Your task to perform on an android device: Open calendar and show me the second week of next month Image 0: 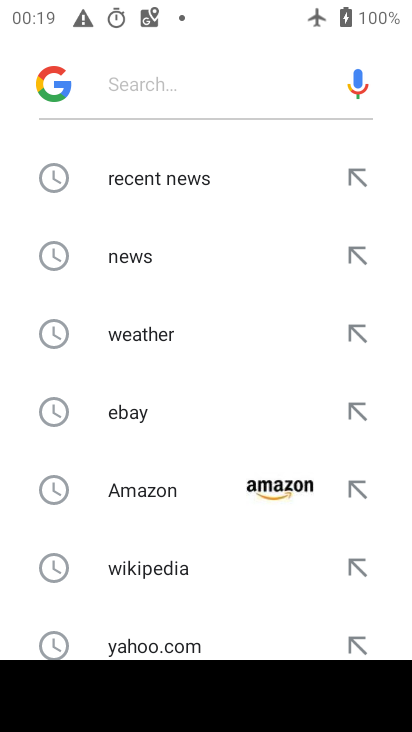
Step 0: press back button
Your task to perform on an android device: Open calendar and show me the second week of next month Image 1: 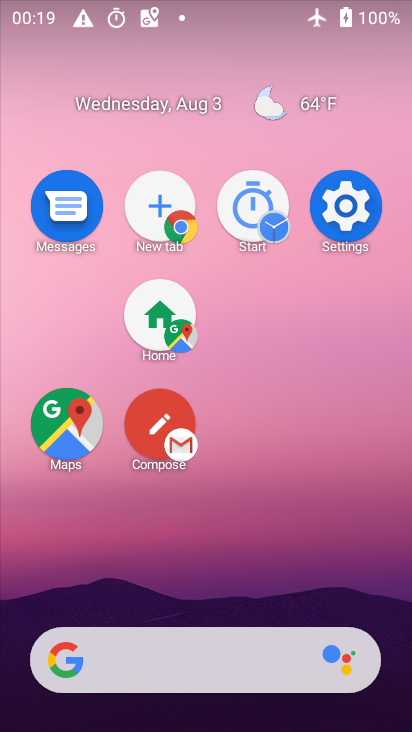
Step 1: drag from (246, 688) to (195, 328)
Your task to perform on an android device: Open calendar and show me the second week of next month Image 2: 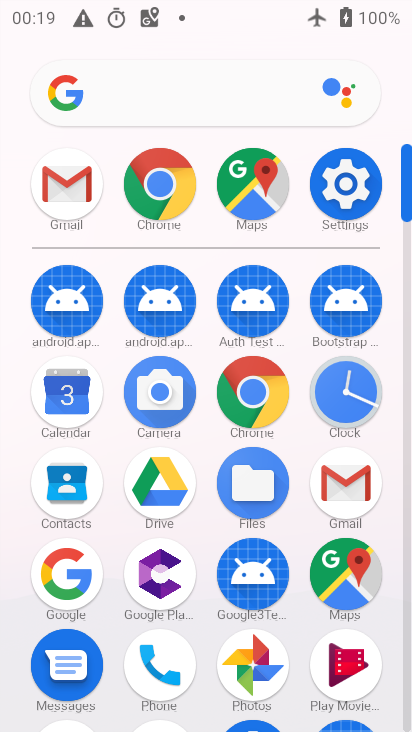
Step 2: click (49, 386)
Your task to perform on an android device: Open calendar and show me the second week of next month Image 3: 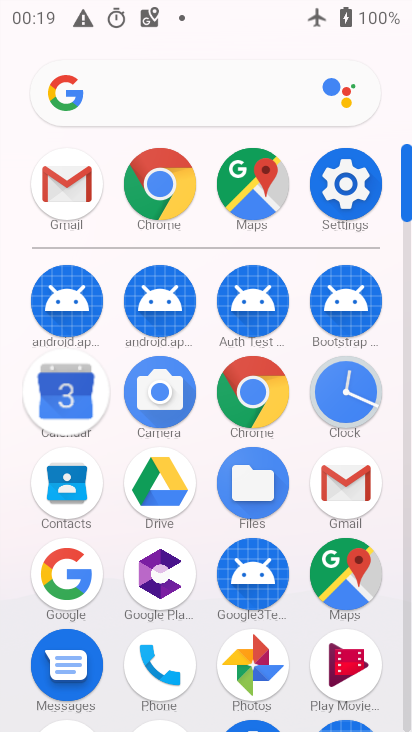
Step 3: click (59, 390)
Your task to perform on an android device: Open calendar and show me the second week of next month Image 4: 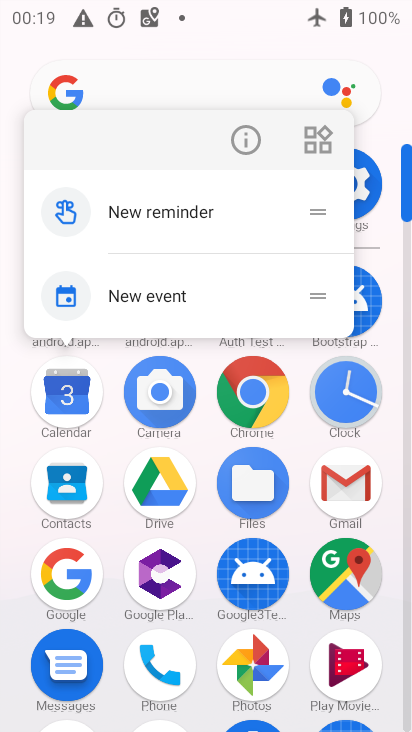
Step 4: click (64, 394)
Your task to perform on an android device: Open calendar and show me the second week of next month Image 5: 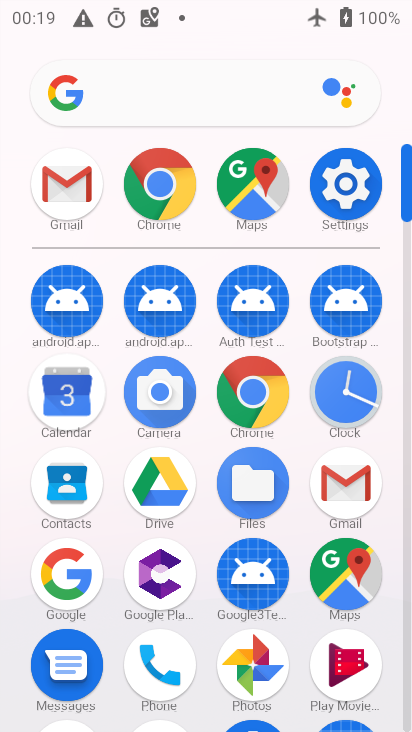
Step 5: click (68, 393)
Your task to perform on an android device: Open calendar and show me the second week of next month Image 6: 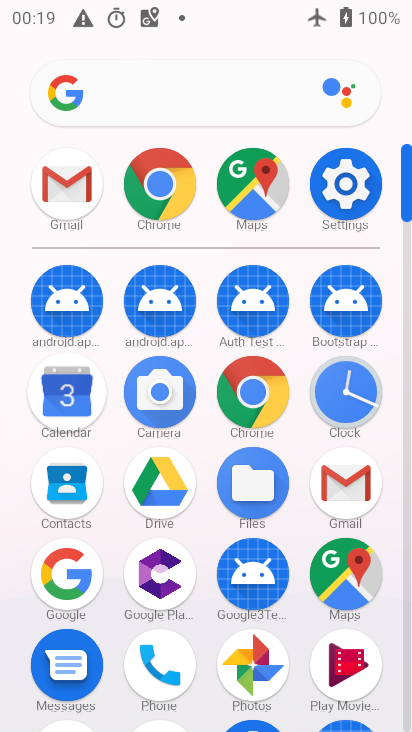
Step 6: click (71, 396)
Your task to perform on an android device: Open calendar and show me the second week of next month Image 7: 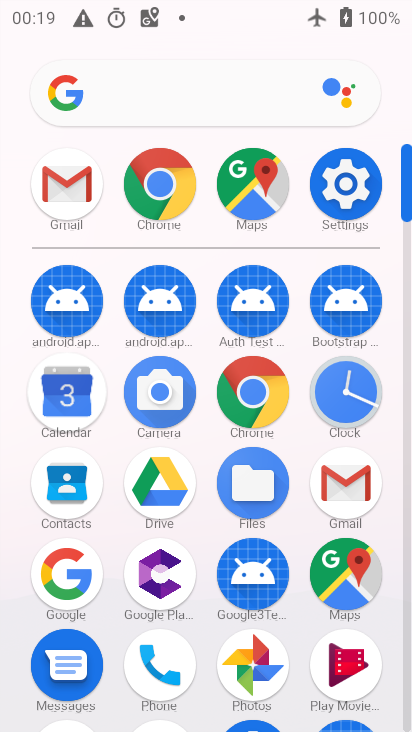
Step 7: click (72, 398)
Your task to perform on an android device: Open calendar and show me the second week of next month Image 8: 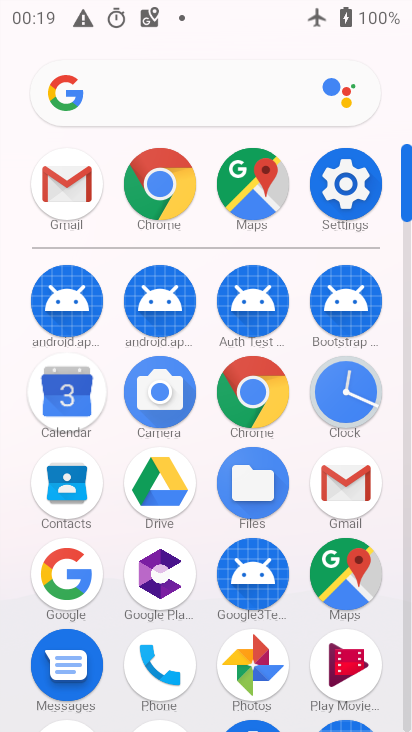
Step 8: click (73, 398)
Your task to perform on an android device: Open calendar and show me the second week of next month Image 9: 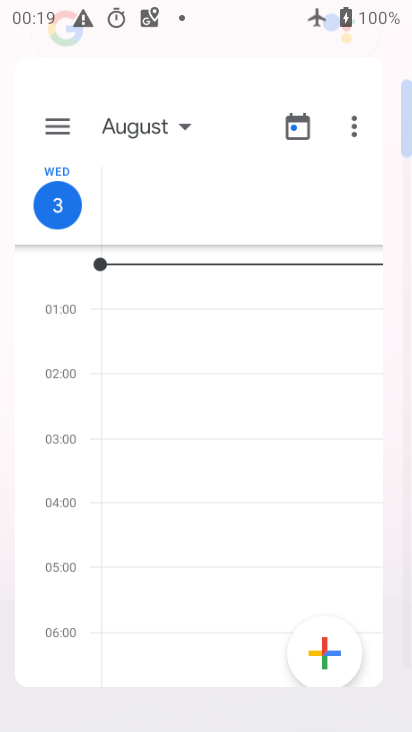
Step 9: click (74, 398)
Your task to perform on an android device: Open calendar and show me the second week of next month Image 10: 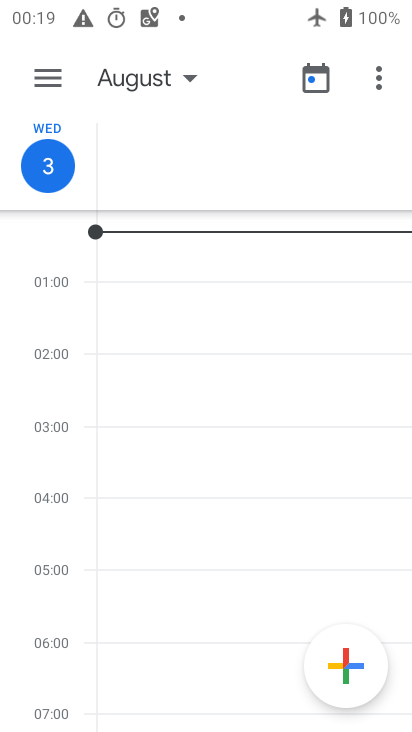
Step 10: click (74, 398)
Your task to perform on an android device: Open calendar and show me the second week of next month Image 11: 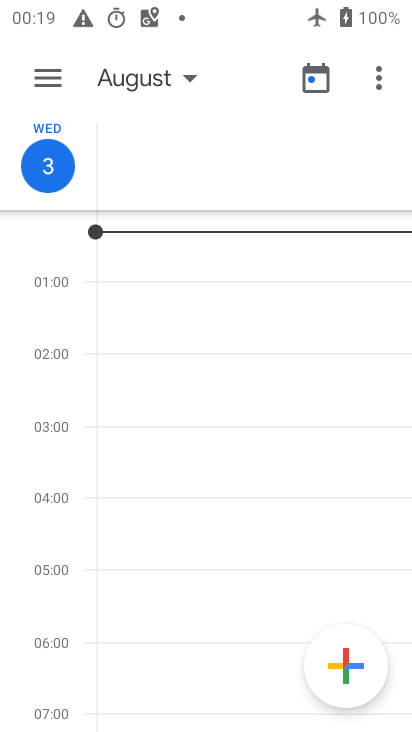
Step 11: click (74, 398)
Your task to perform on an android device: Open calendar and show me the second week of next month Image 12: 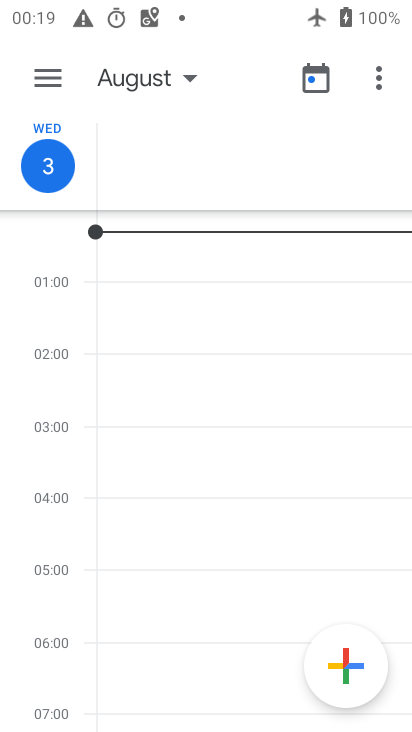
Step 12: click (191, 73)
Your task to perform on an android device: Open calendar and show me the second week of next month Image 13: 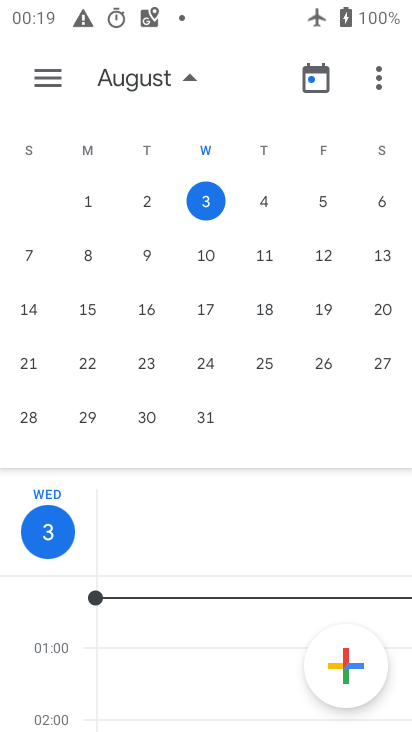
Step 13: click (29, 332)
Your task to perform on an android device: Open calendar and show me the second week of next month Image 14: 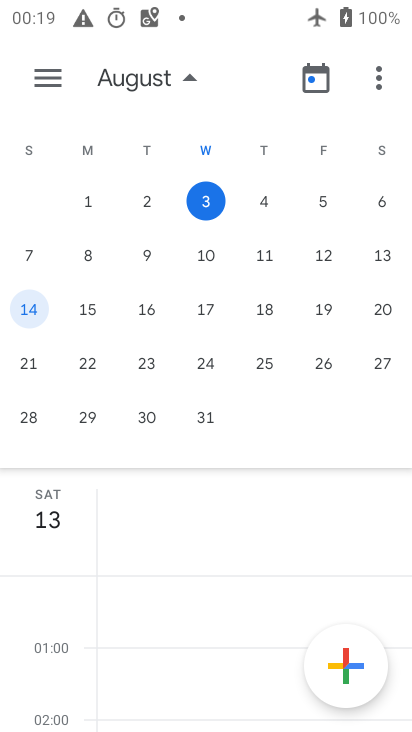
Step 14: drag from (281, 325) to (35, 302)
Your task to perform on an android device: Open calendar and show me the second week of next month Image 15: 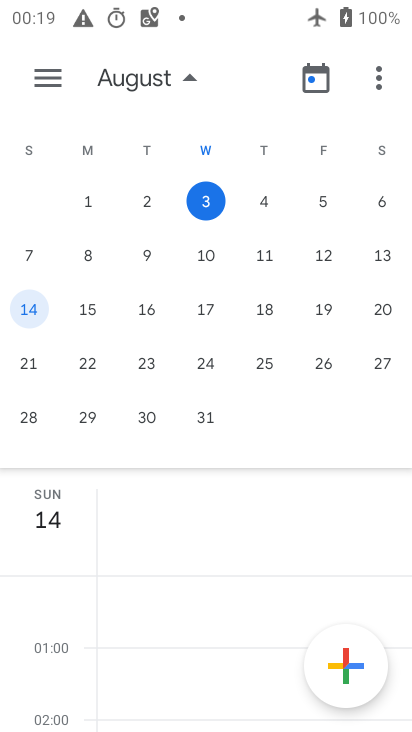
Step 15: drag from (304, 252) to (4, 270)
Your task to perform on an android device: Open calendar and show me the second week of next month Image 16: 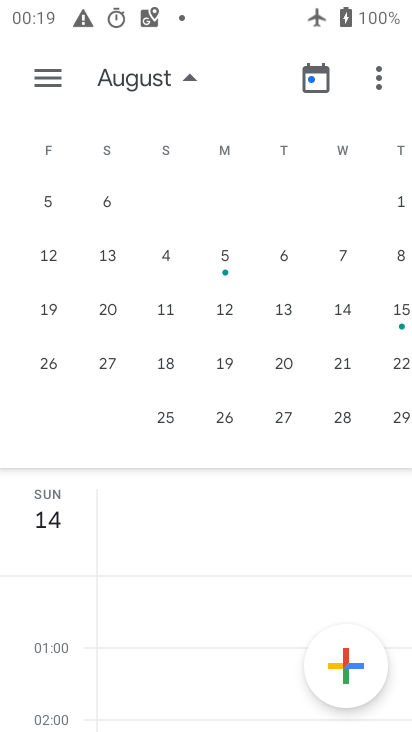
Step 16: click (17, 296)
Your task to perform on an android device: Open calendar and show me the second week of next month Image 17: 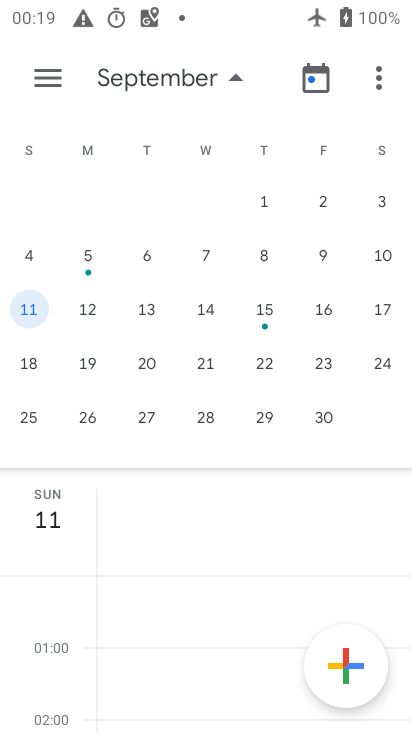
Step 17: click (262, 253)
Your task to perform on an android device: Open calendar and show me the second week of next month Image 18: 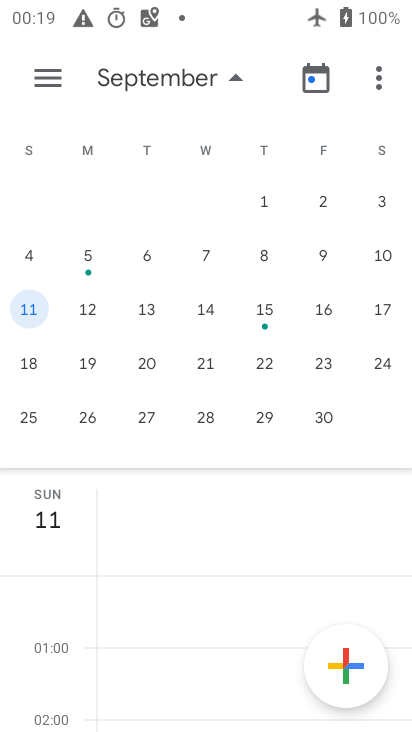
Step 18: click (267, 253)
Your task to perform on an android device: Open calendar and show me the second week of next month Image 19: 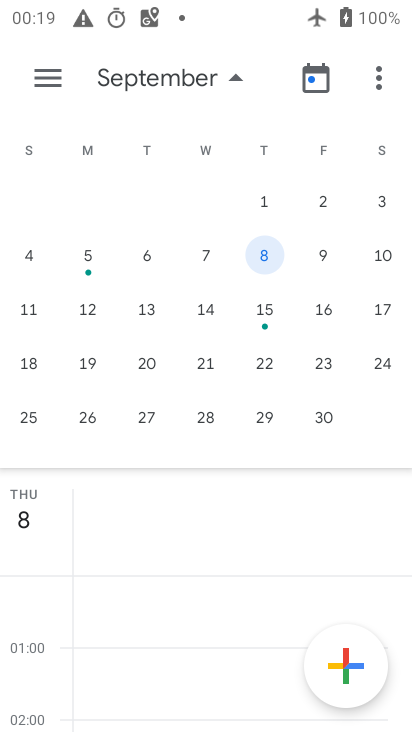
Step 19: click (269, 253)
Your task to perform on an android device: Open calendar and show me the second week of next month Image 20: 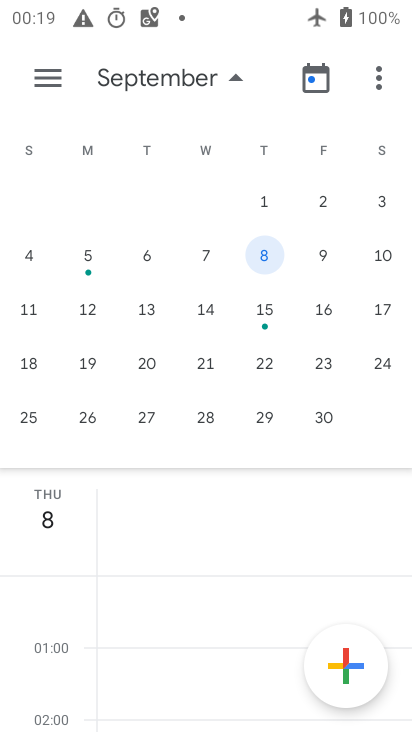
Step 20: click (269, 253)
Your task to perform on an android device: Open calendar and show me the second week of next month Image 21: 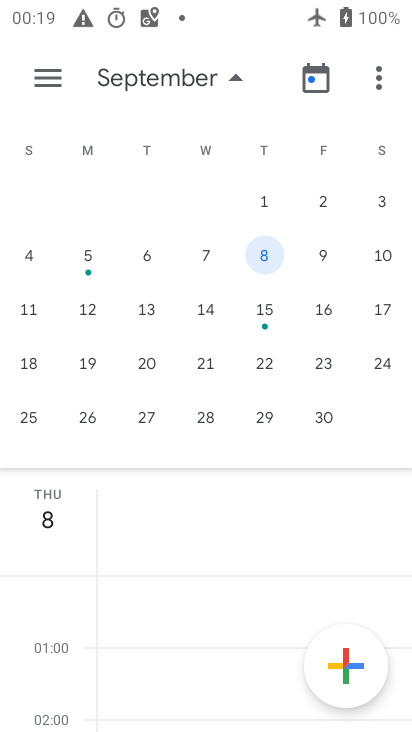
Step 21: task complete